Your task to perform on an android device: turn off smart reply in the gmail app Image 0: 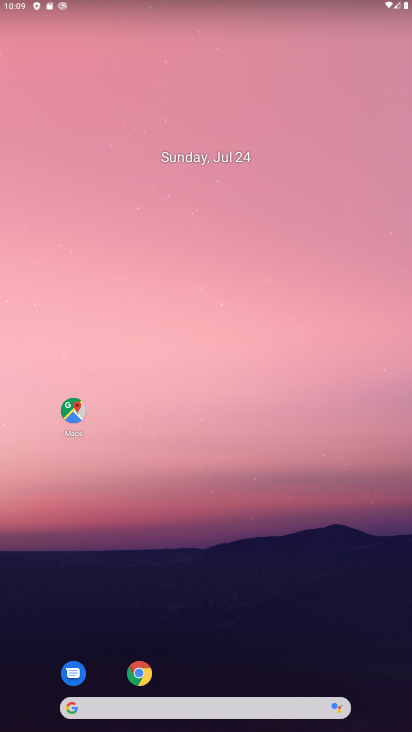
Step 0: drag from (205, 609) to (184, 305)
Your task to perform on an android device: turn off smart reply in the gmail app Image 1: 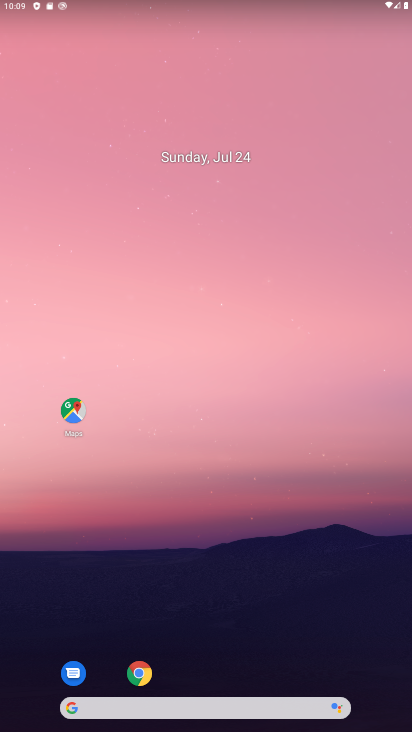
Step 1: drag from (246, 588) to (229, 84)
Your task to perform on an android device: turn off smart reply in the gmail app Image 2: 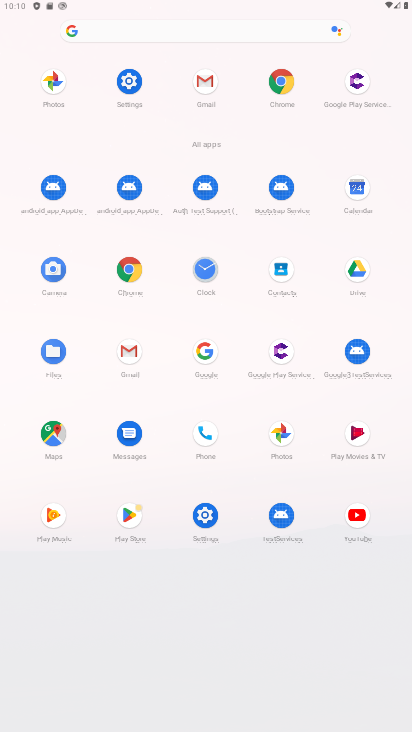
Step 2: click (135, 351)
Your task to perform on an android device: turn off smart reply in the gmail app Image 3: 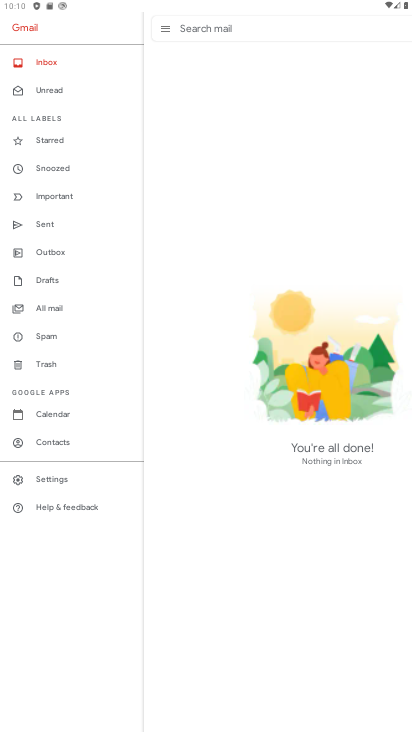
Step 3: click (55, 485)
Your task to perform on an android device: turn off smart reply in the gmail app Image 4: 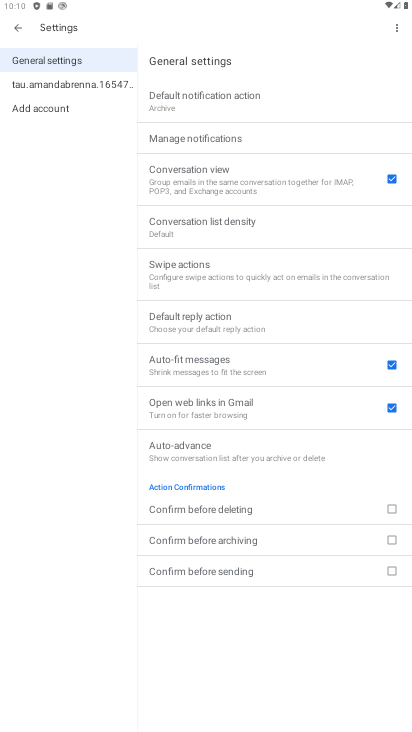
Step 4: task complete